Your task to perform on an android device: turn off sleep mode Image 0: 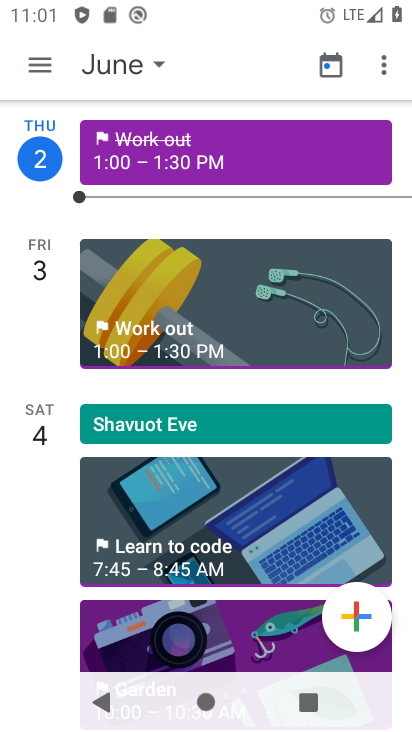
Step 0: press home button
Your task to perform on an android device: turn off sleep mode Image 1: 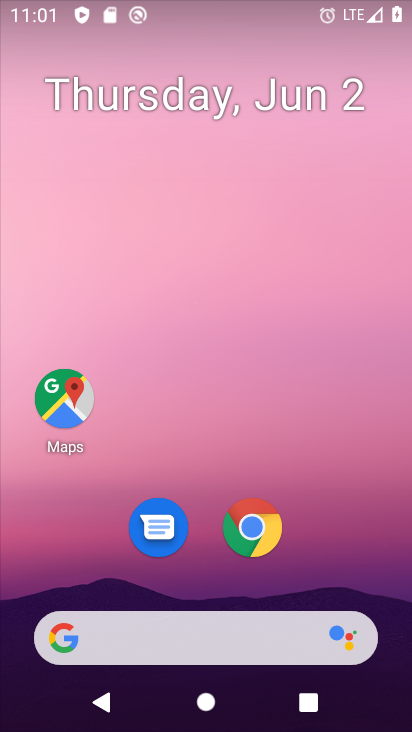
Step 1: drag from (218, 632) to (265, 202)
Your task to perform on an android device: turn off sleep mode Image 2: 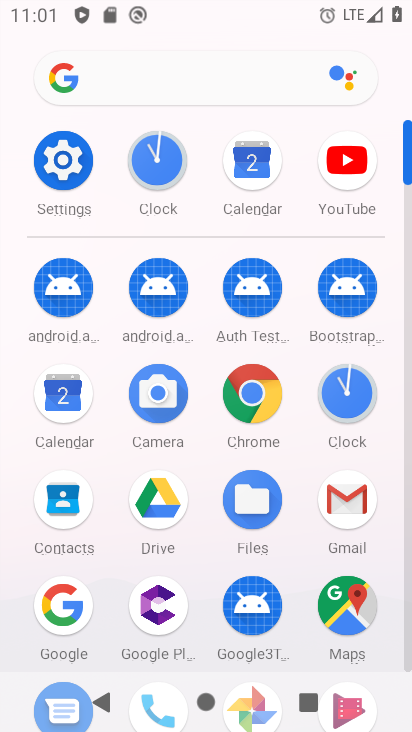
Step 2: click (54, 166)
Your task to perform on an android device: turn off sleep mode Image 3: 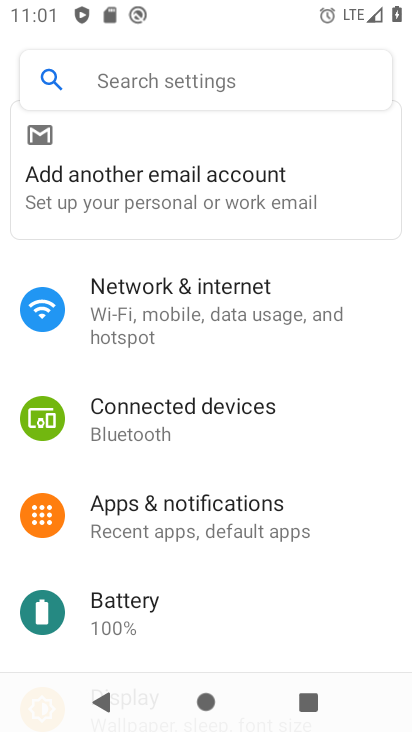
Step 3: drag from (191, 569) to (215, 165)
Your task to perform on an android device: turn off sleep mode Image 4: 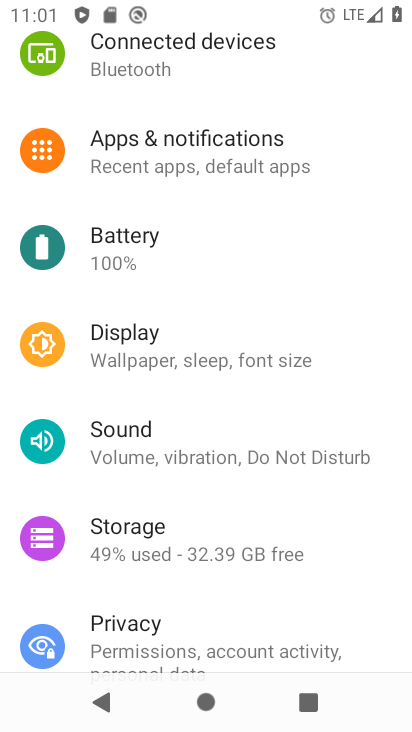
Step 4: click (133, 354)
Your task to perform on an android device: turn off sleep mode Image 5: 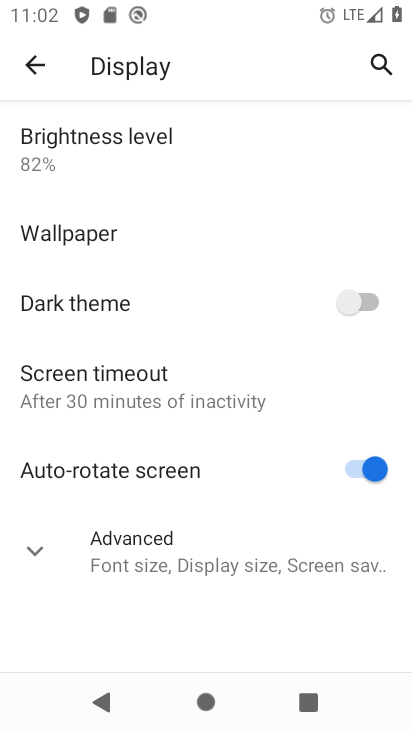
Step 5: task complete